Your task to perform on an android device: Clear the shopping cart on newegg.com. Search for usb-a to usb-b on newegg.com, select the first entry, and add it to the cart. Image 0: 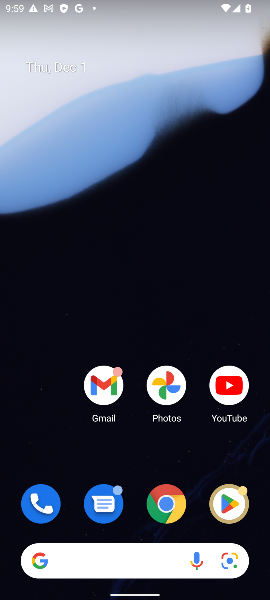
Step 0: task complete